Your task to perform on an android device: install app "Adobe Acrobat Reader: Edit PDF" Image 0: 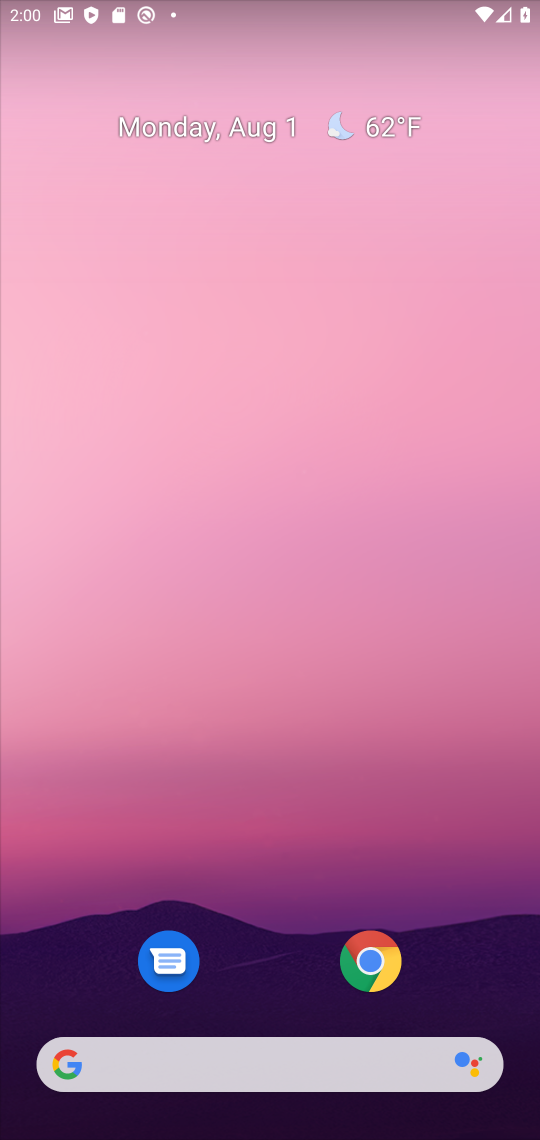
Step 0: press home button
Your task to perform on an android device: install app "Adobe Acrobat Reader: Edit PDF" Image 1: 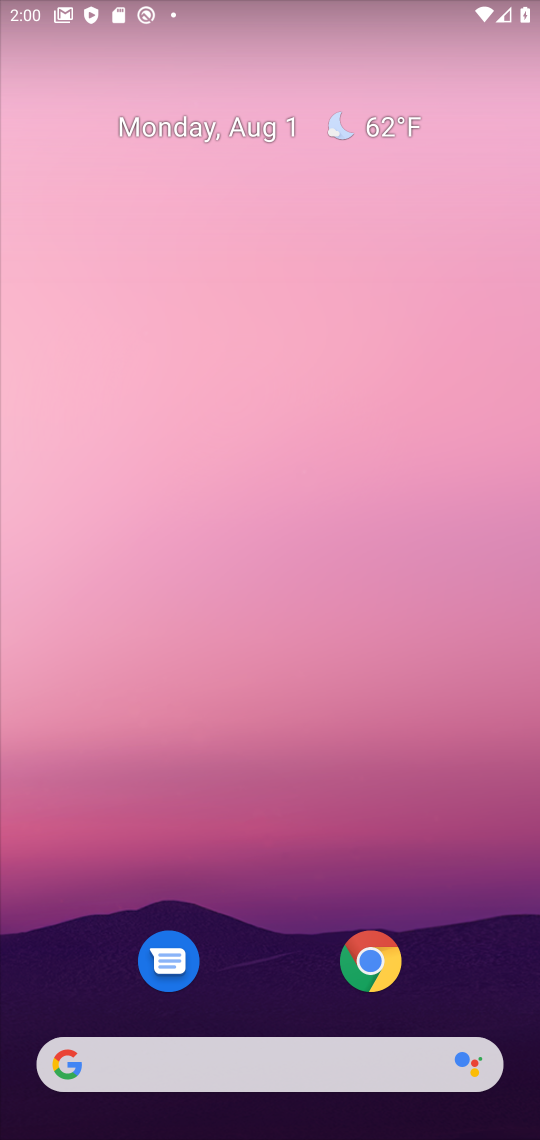
Step 1: drag from (257, 978) to (304, 50)
Your task to perform on an android device: install app "Adobe Acrobat Reader: Edit PDF" Image 2: 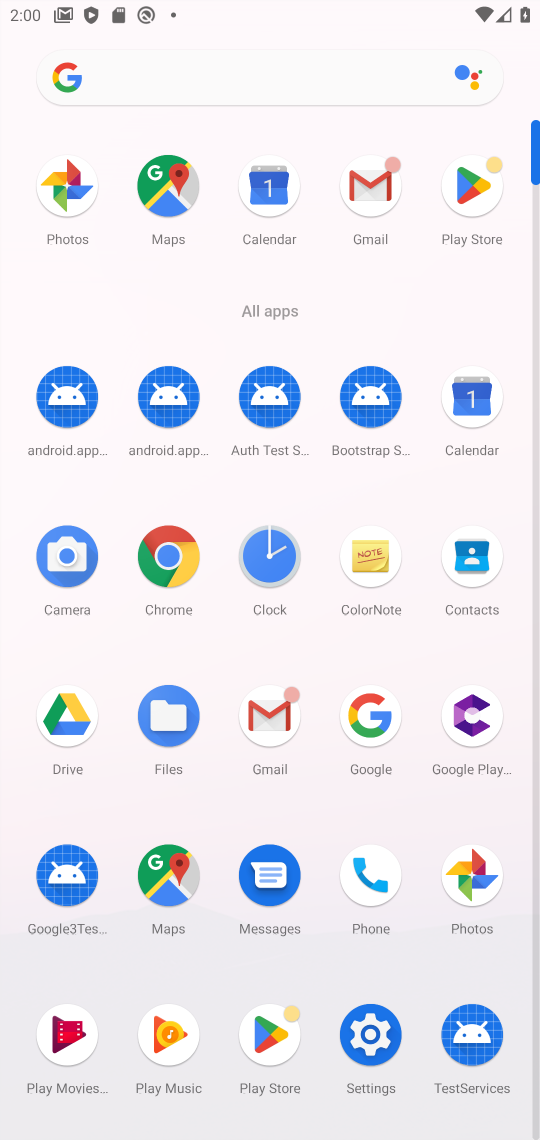
Step 2: click (471, 176)
Your task to perform on an android device: install app "Adobe Acrobat Reader: Edit PDF" Image 3: 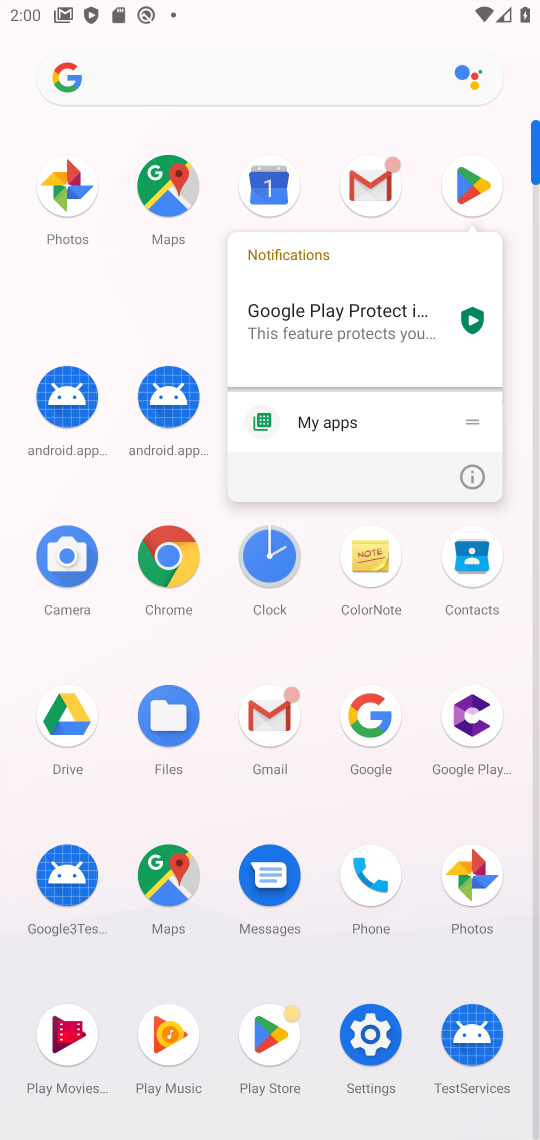
Step 3: click (471, 202)
Your task to perform on an android device: install app "Adobe Acrobat Reader: Edit PDF" Image 4: 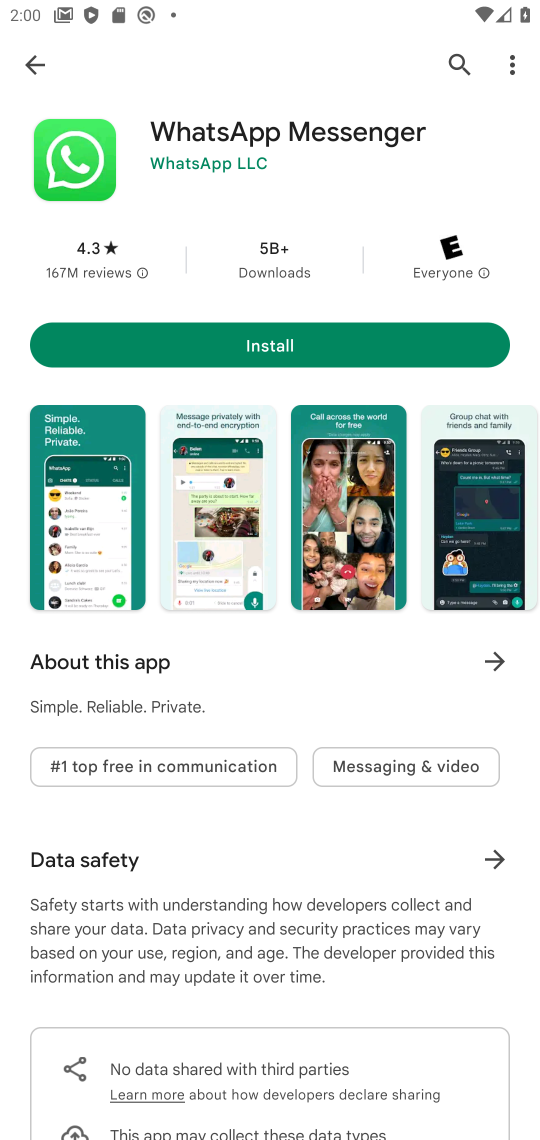
Step 4: click (464, 57)
Your task to perform on an android device: install app "Adobe Acrobat Reader: Edit PDF" Image 5: 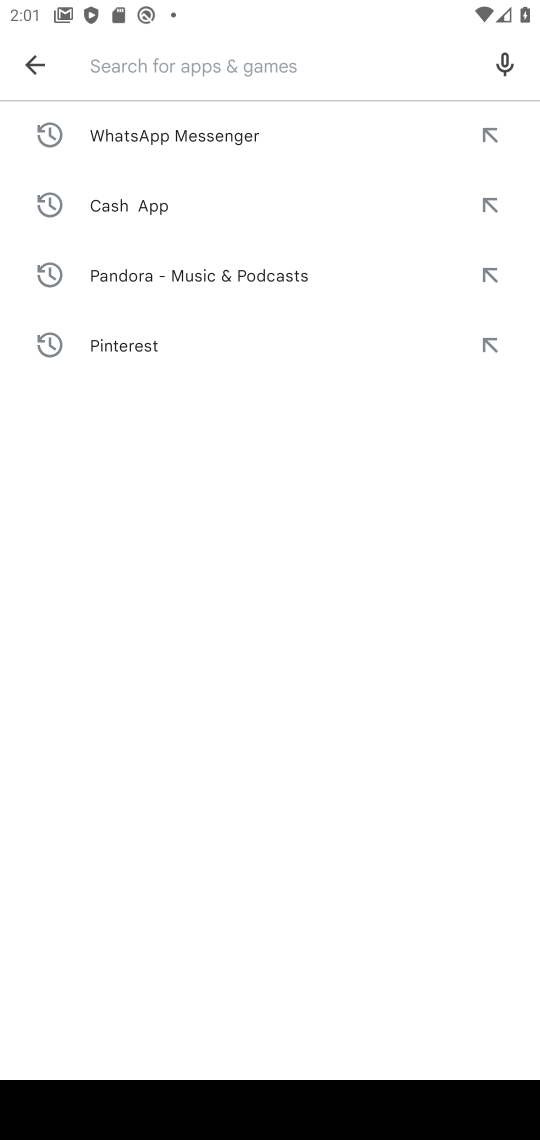
Step 5: type "Adobe Acrobat Reader: Edit PDF"
Your task to perform on an android device: install app "Adobe Acrobat Reader: Edit PDF" Image 6: 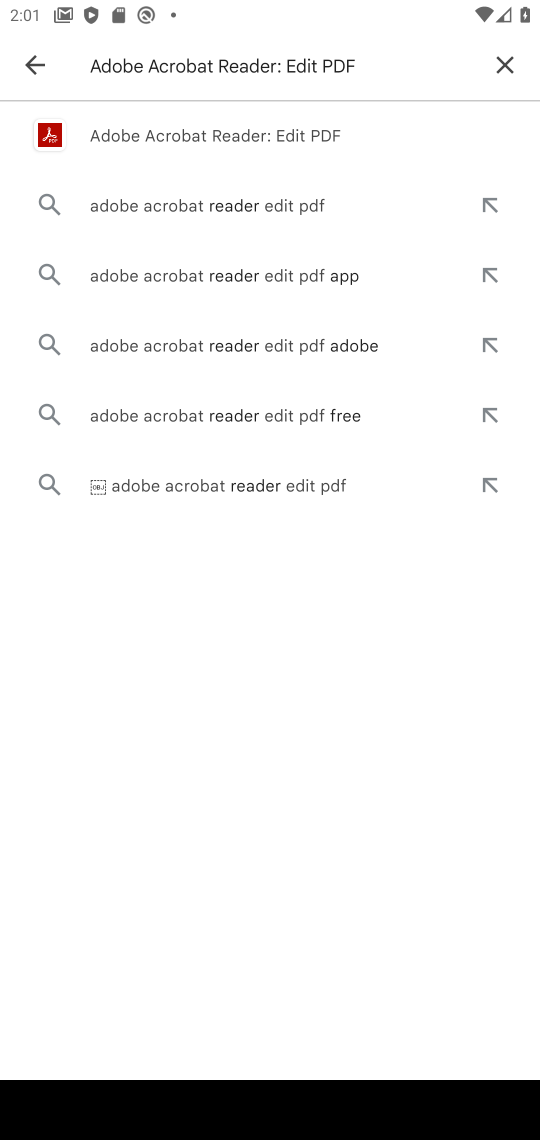
Step 6: press enter
Your task to perform on an android device: install app "Adobe Acrobat Reader: Edit PDF" Image 7: 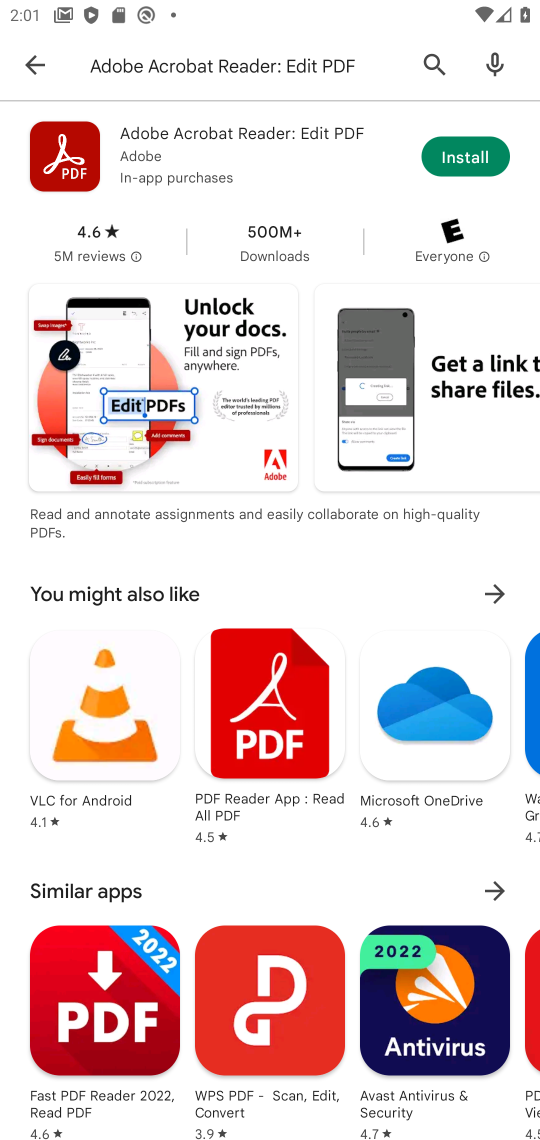
Step 7: click (498, 156)
Your task to perform on an android device: install app "Adobe Acrobat Reader: Edit PDF" Image 8: 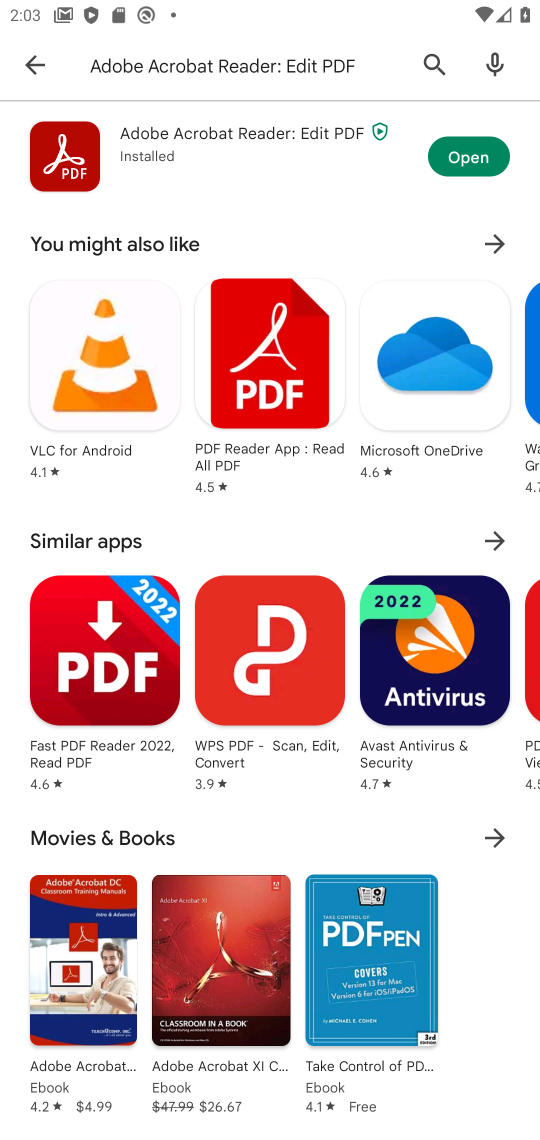
Step 8: task complete